Your task to perform on an android device: Show me productivity apps on the Play Store Image 0: 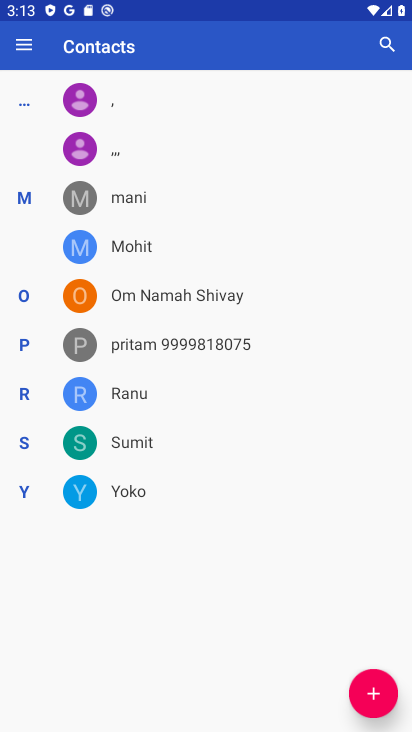
Step 0: press home button
Your task to perform on an android device: Show me productivity apps on the Play Store Image 1: 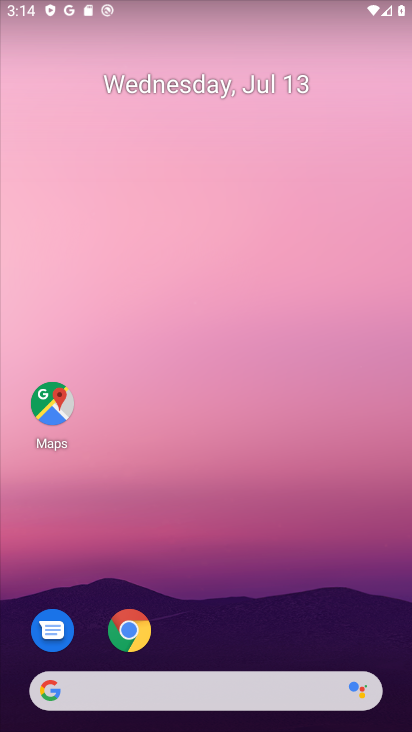
Step 1: click (311, 23)
Your task to perform on an android device: Show me productivity apps on the Play Store Image 2: 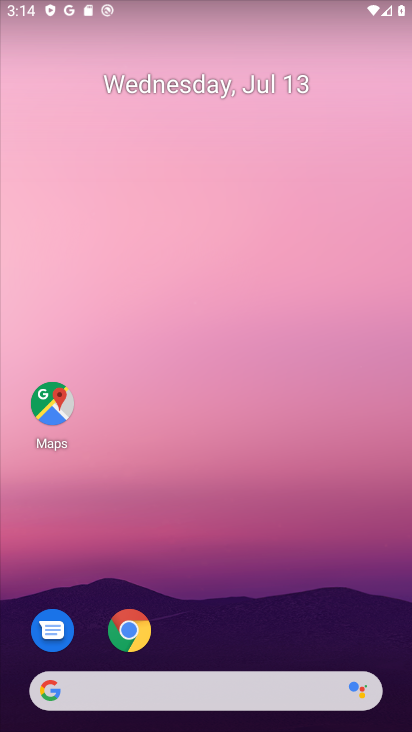
Step 2: drag from (200, 613) to (299, 0)
Your task to perform on an android device: Show me productivity apps on the Play Store Image 3: 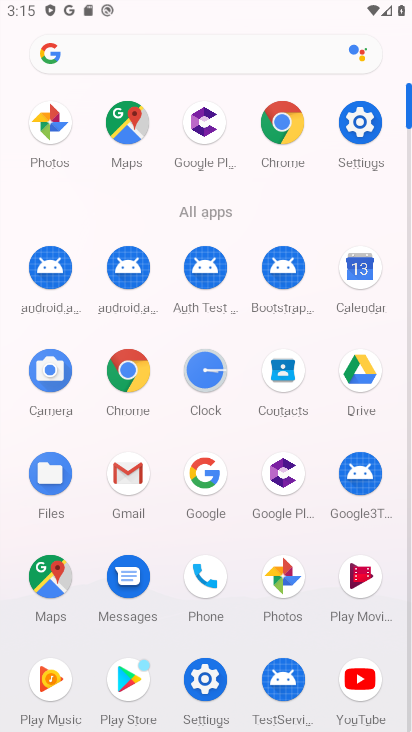
Step 3: click (125, 694)
Your task to perform on an android device: Show me productivity apps on the Play Store Image 4: 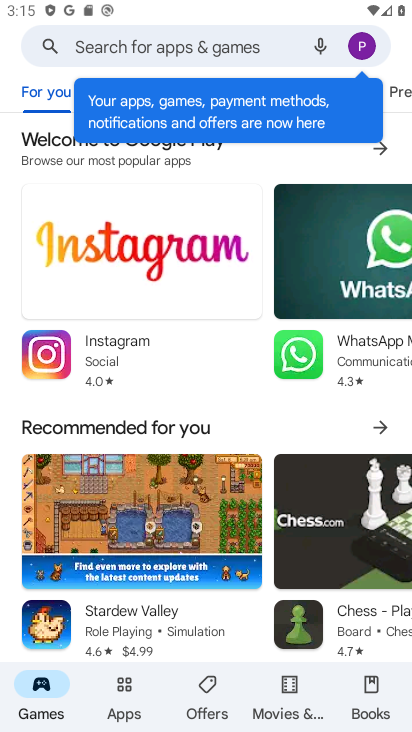
Step 4: click (117, 714)
Your task to perform on an android device: Show me productivity apps on the Play Store Image 5: 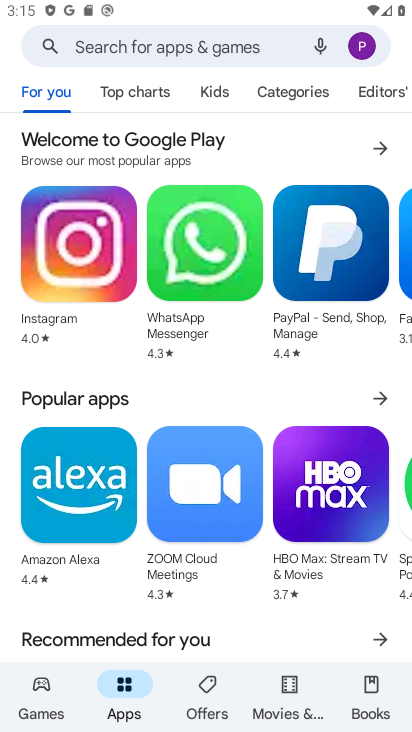
Step 5: click (281, 92)
Your task to perform on an android device: Show me productivity apps on the Play Store Image 6: 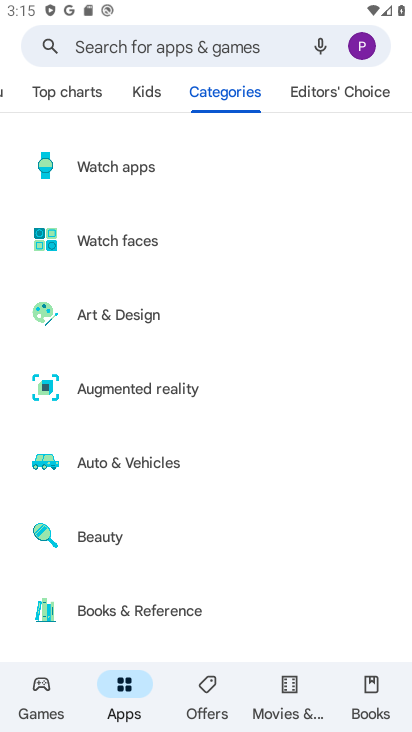
Step 6: drag from (124, 522) to (218, 146)
Your task to perform on an android device: Show me productivity apps on the Play Store Image 7: 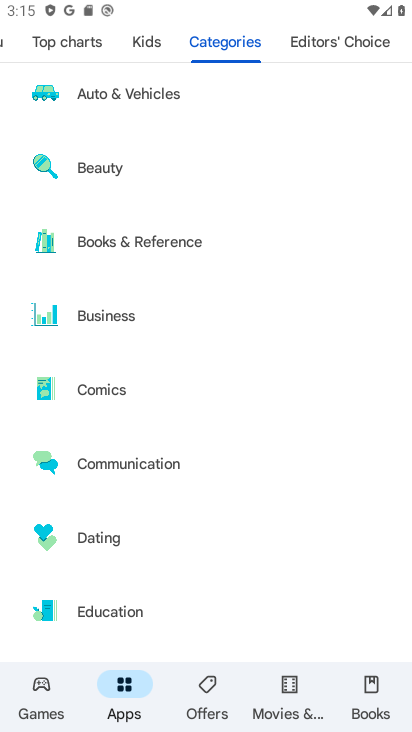
Step 7: drag from (151, 524) to (243, 91)
Your task to perform on an android device: Show me productivity apps on the Play Store Image 8: 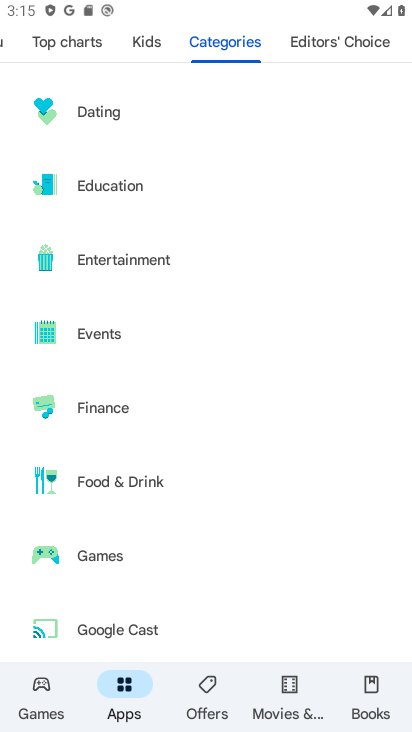
Step 8: drag from (134, 581) to (142, 278)
Your task to perform on an android device: Show me productivity apps on the Play Store Image 9: 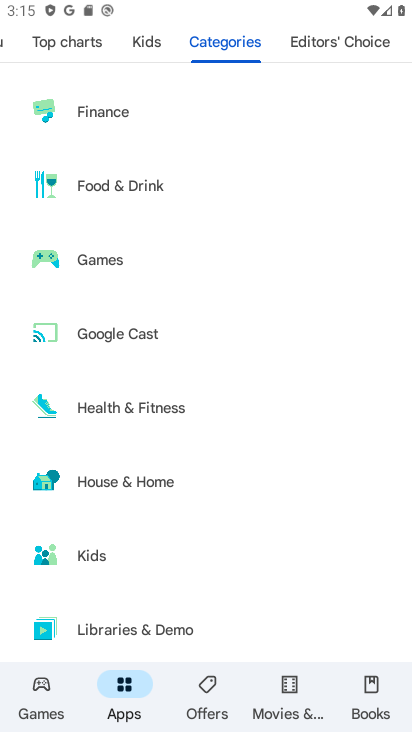
Step 9: drag from (103, 548) to (207, 75)
Your task to perform on an android device: Show me productivity apps on the Play Store Image 10: 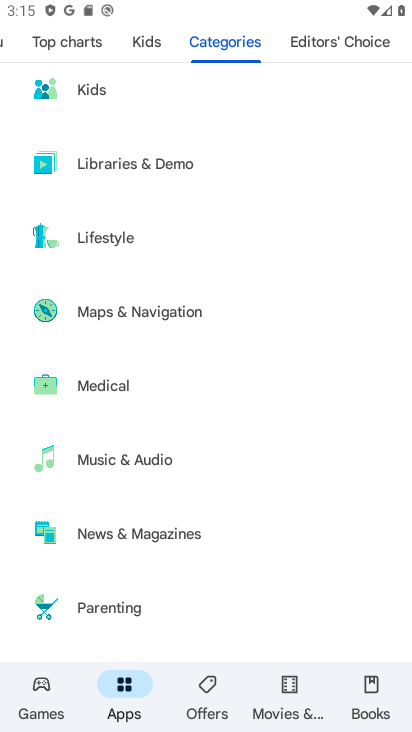
Step 10: drag from (124, 466) to (171, 189)
Your task to perform on an android device: Show me productivity apps on the Play Store Image 11: 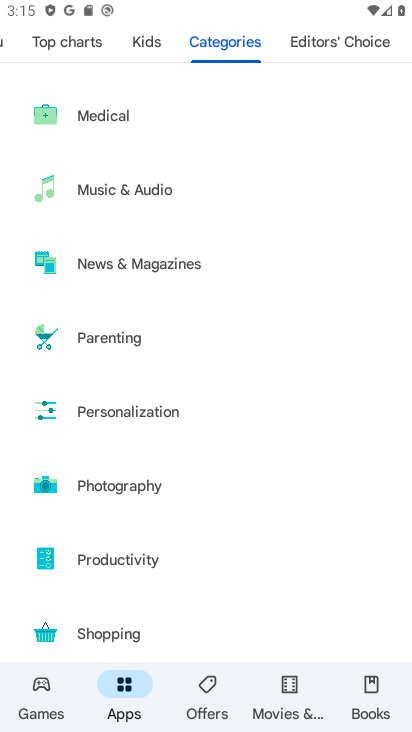
Step 11: click (116, 561)
Your task to perform on an android device: Show me productivity apps on the Play Store Image 12: 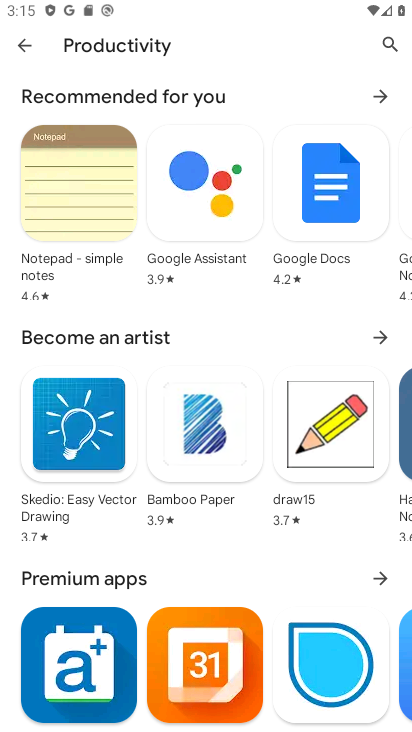
Step 12: task complete